Your task to perform on an android device: toggle priority inbox in the gmail app Image 0: 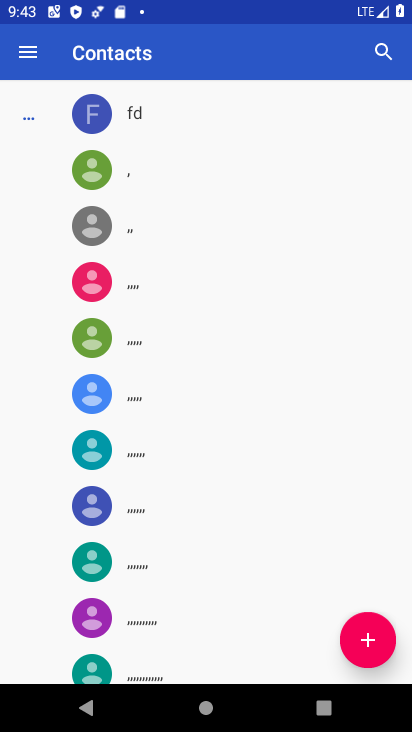
Step 0: press home button
Your task to perform on an android device: toggle priority inbox in the gmail app Image 1: 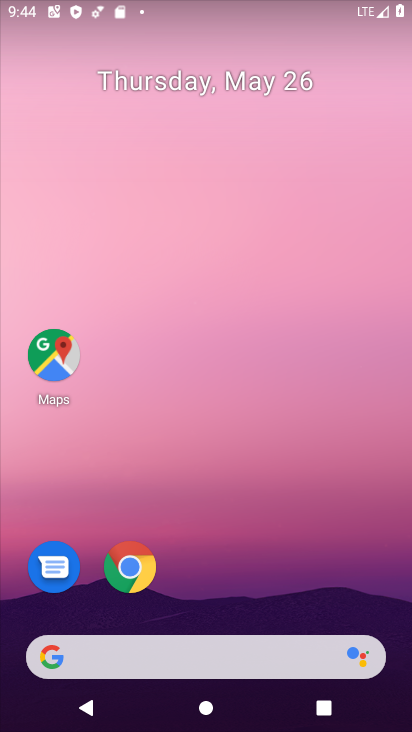
Step 1: drag from (247, 438) to (367, 540)
Your task to perform on an android device: toggle priority inbox in the gmail app Image 2: 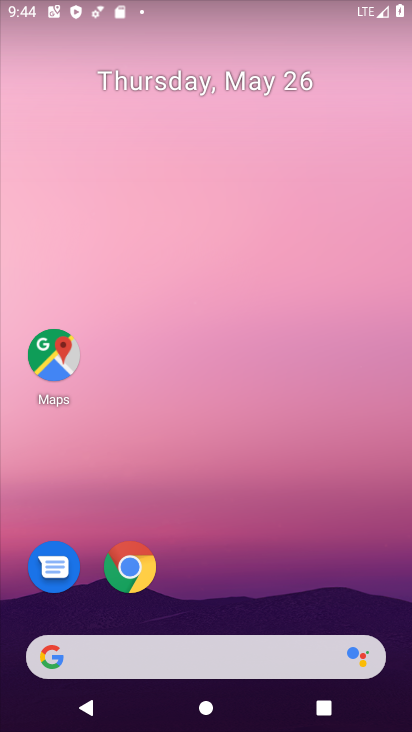
Step 2: drag from (246, 628) to (256, 0)
Your task to perform on an android device: toggle priority inbox in the gmail app Image 3: 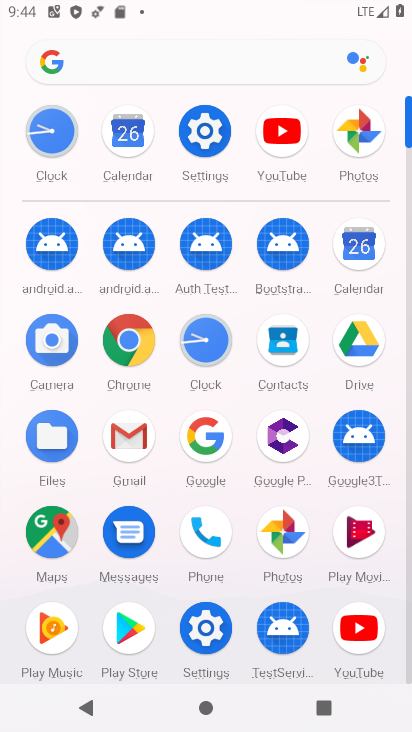
Step 3: click (144, 441)
Your task to perform on an android device: toggle priority inbox in the gmail app Image 4: 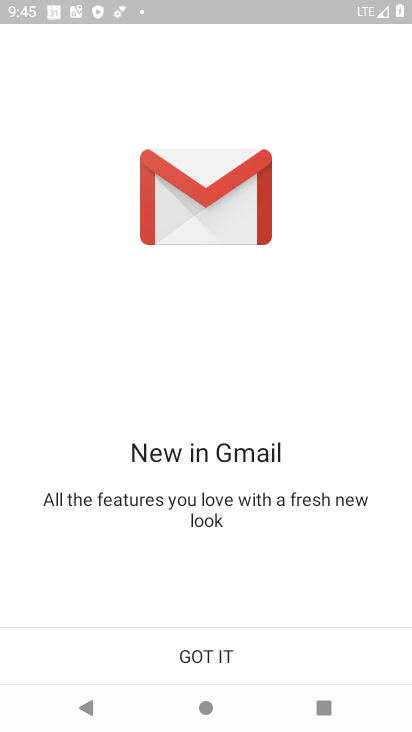
Step 4: click (196, 653)
Your task to perform on an android device: toggle priority inbox in the gmail app Image 5: 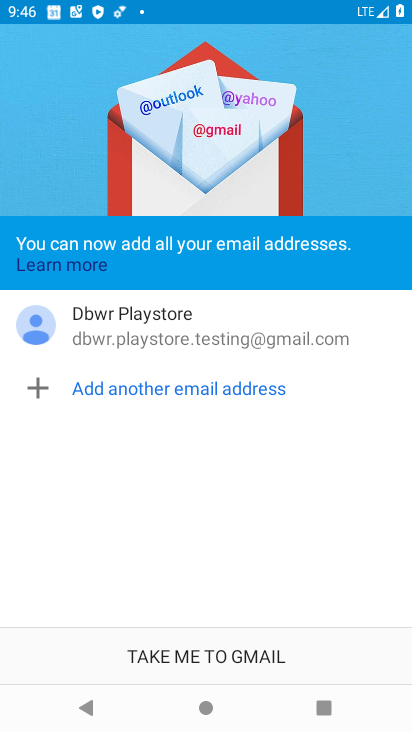
Step 5: click (253, 658)
Your task to perform on an android device: toggle priority inbox in the gmail app Image 6: 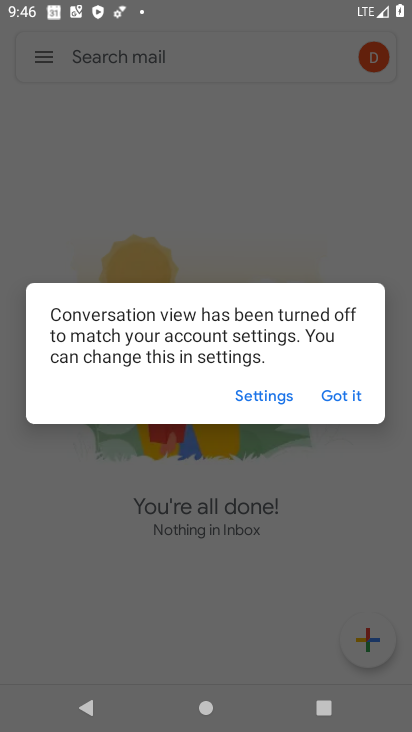
Step 6: click (348, 392)
Your task to perform on an android device: toggle priority inbox in the gmail app Image 7: 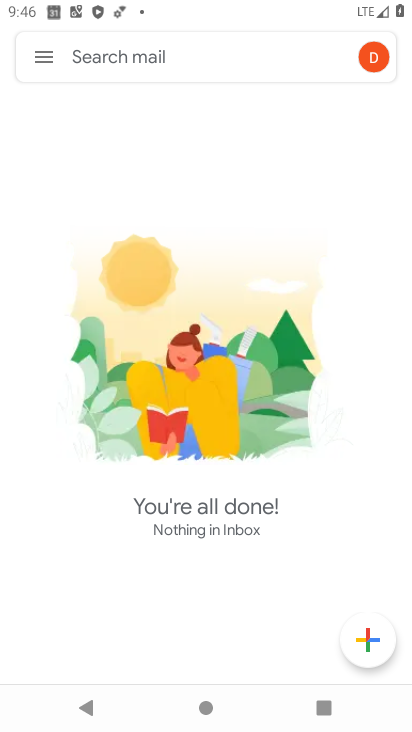
Step 7: click (37, 55)
Your task to perform on an android device: toggle priority inbox in the gmail app Image 8: 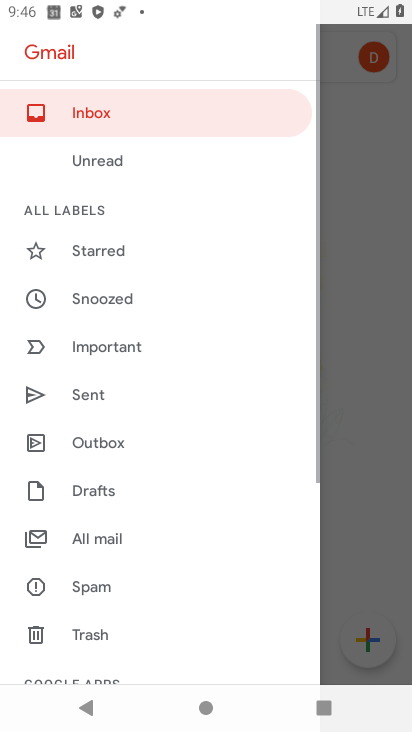
Step 8: drag from (105, 650) to (222, 4)
Your task to perform on an android device: toggle priority inbox in the gmail app Image 9: 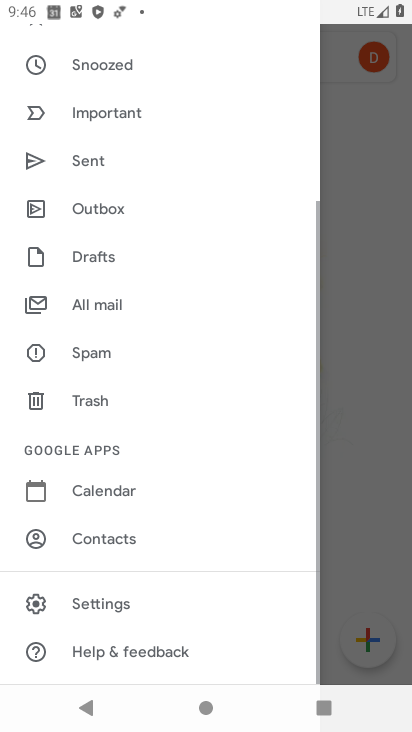
Step 9: click (145, 604)
Your task to perform on an android device: toggle priority inbox in the gmail app Image 10: 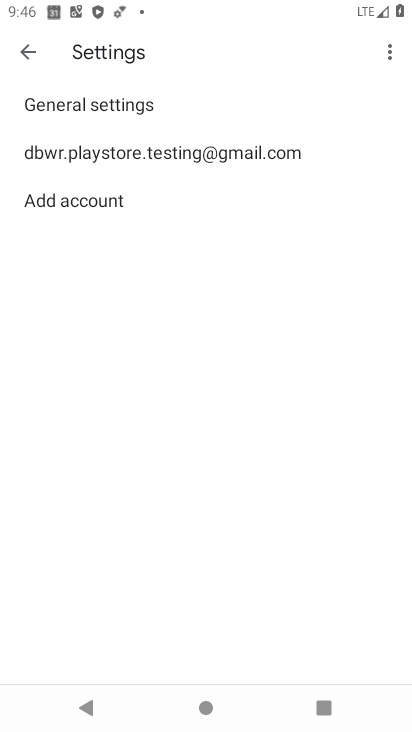
Step 10: click (234, 155)
Your task to perform on an android device: toggle priority inbox in the gmail app Image 11: 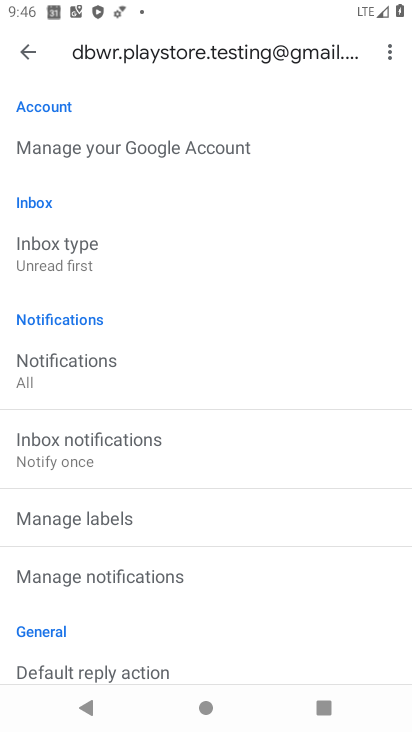
Step 11: click (82, 256)
Your task to perform on an android device: toggle priority inbox in the gmail app Image 12: 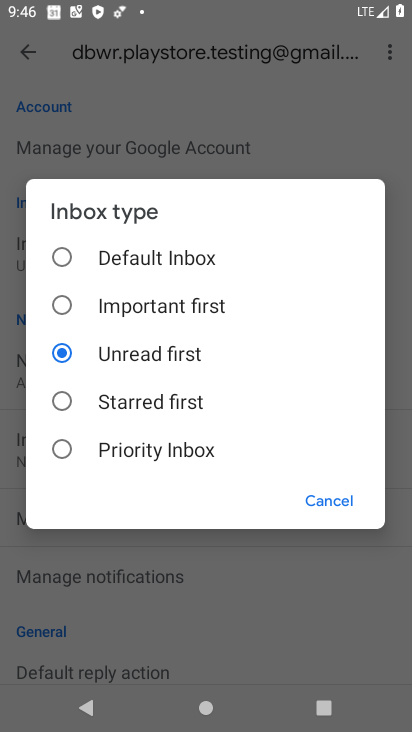
Step 12: click (174, 458)
Your task to perform on an android device: toggle priority inbox in the gmail app Image 13: 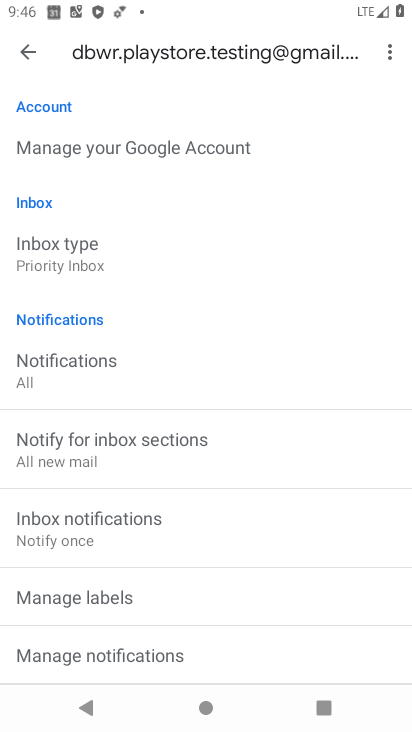
Step 13: task complete